Your task to perform on an android device: delete a single message in the gmail app Image 0: 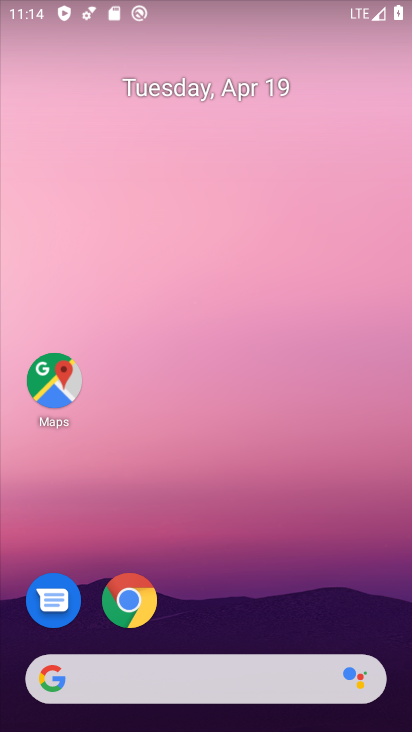
Step 0: drag from (377, 545) to (394, 10)
Your task to perform on an android device: delete a single message in the gmail app Image 1: 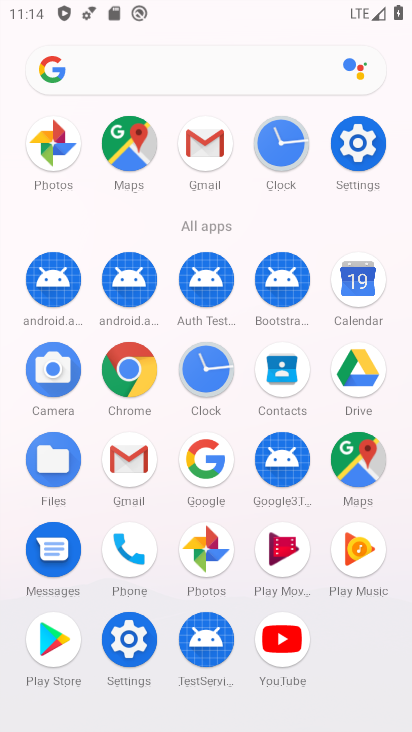
Step 1: click (204, 150)
Your task to perform on an android device: delete a single message in the gmail app Image 2: 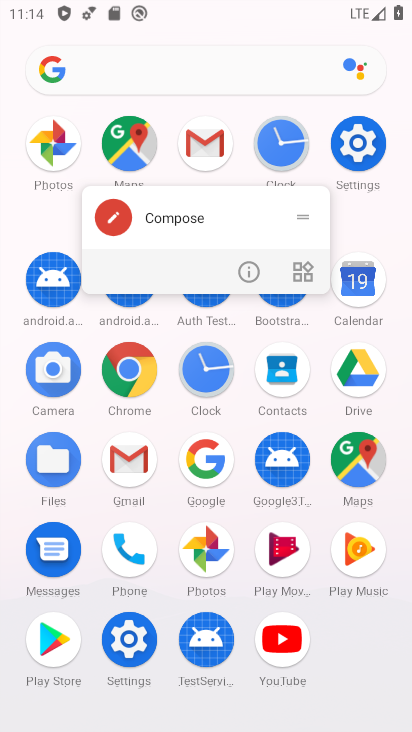
Step 2: click (206, 148)
Your task to perform on an android device: delete a single message in the gmail app Image 3: 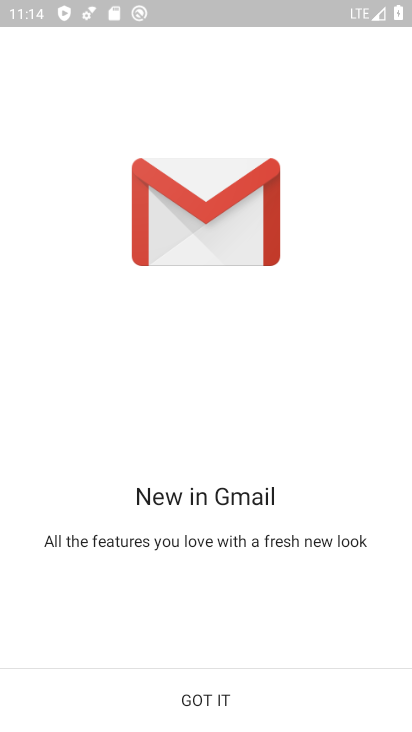
Step 3: click (195, 699)
Your task to perform on an android device: delete a single message in the gmail app Image 4: 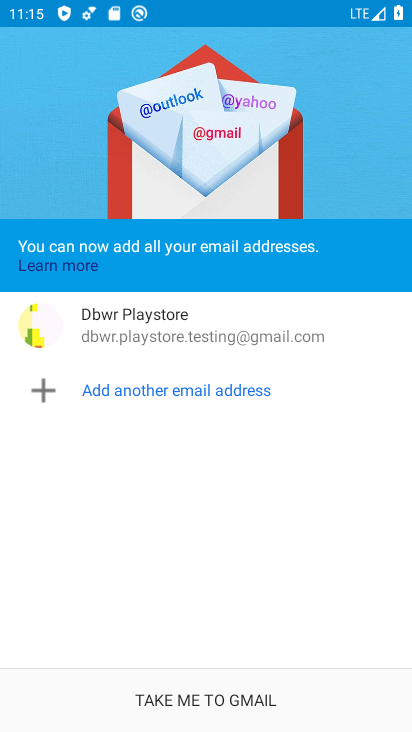
Step 4: click (213, 704)
Your task to perform on an android device: delete a single message in the gmail app Image 5: 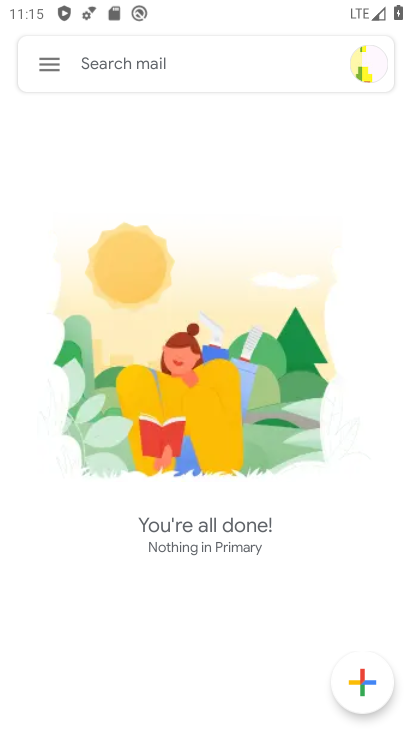
Step 5: click (53, 65)
Your task to perform on an android device: delete a single message in the gmail app Image 6: 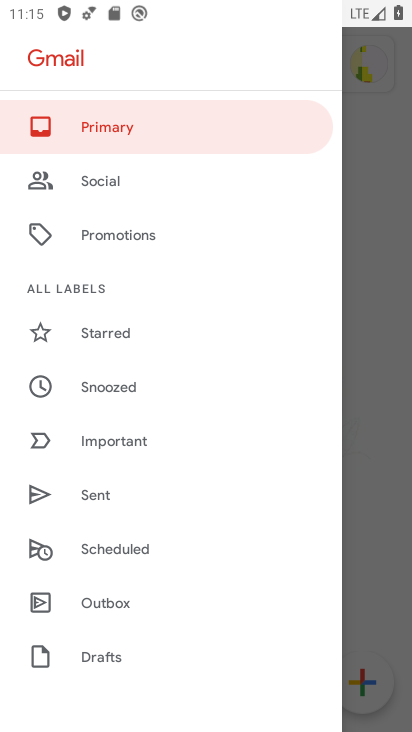
Step 6: drag from (221, 612) to (238, 427)
Your task to perform on an android device: delete a single message in the gmail app Image 7: 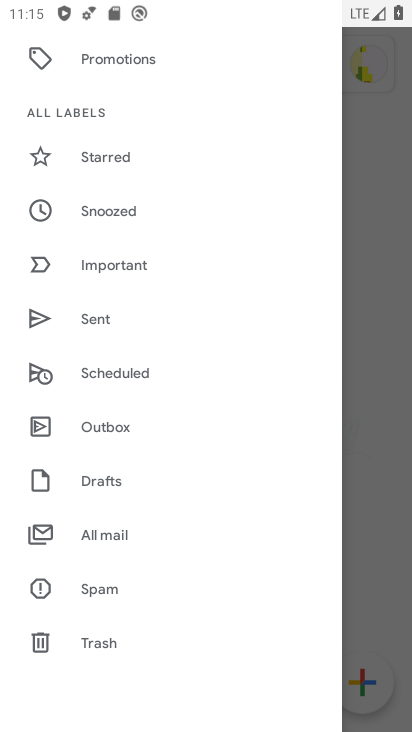
Step 7: click (110, 532)
Your task to perform on an android device: delete a single message in the gmail app Image 8: 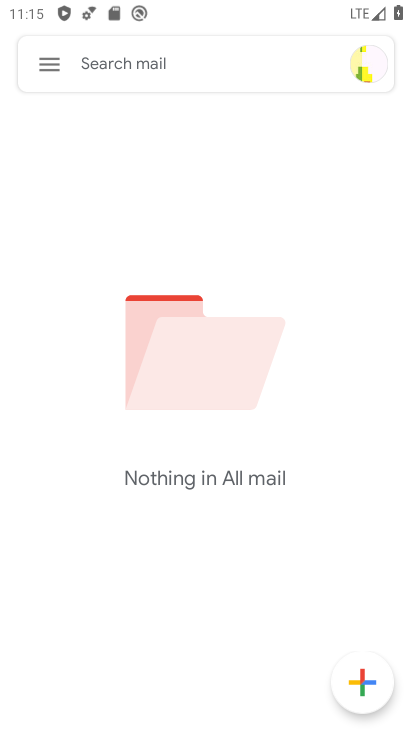
Step 8: task complete